Your task to perform on an android device: see tabs open on other devices in the chrome app Image 0: 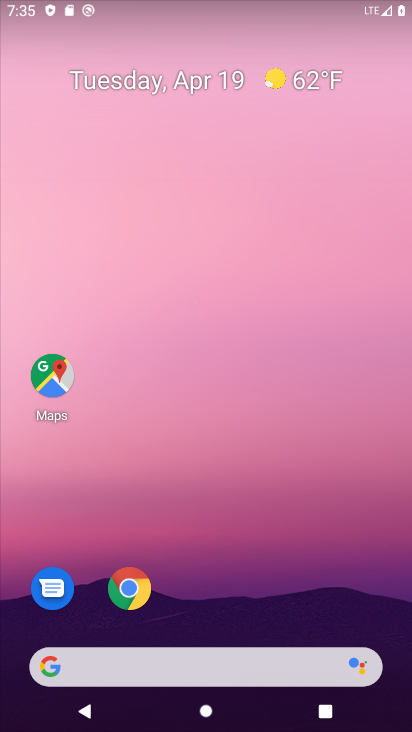
Step 0: click (113, 594)
Your task to perform on an android device: see tabs open on other devices in the chrome app Image 1: 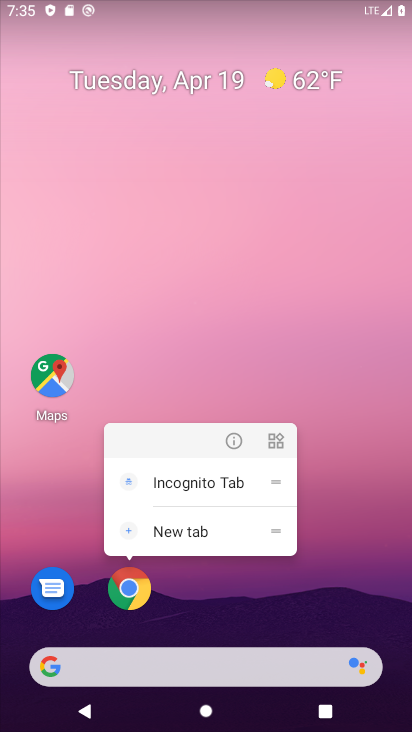
Step 1: click (130, 594)
Your task to perform on an android device: see tabs open on other devices in the chrome app Image 2: 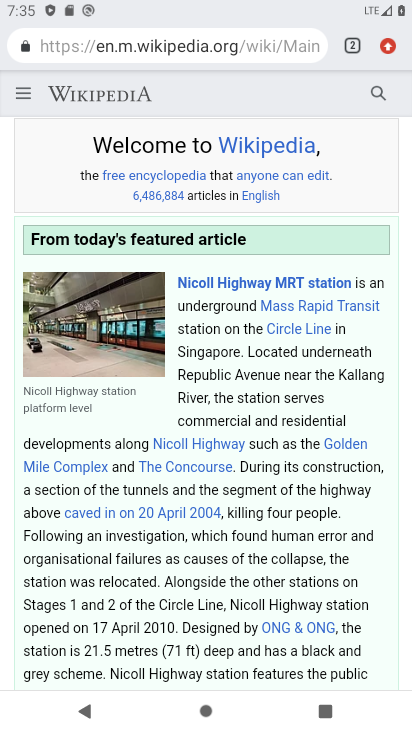
Step 2: click (388, 42)
Your task to perform on an android device: see tabs open on other devices in the chrome app Image 3: 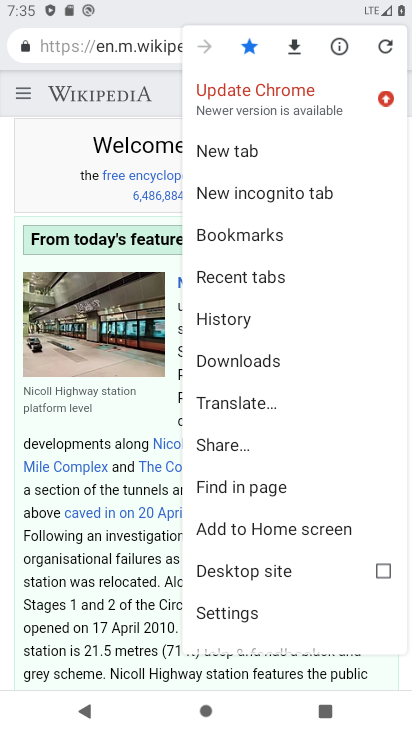
Step 3: click (259, 271)
Your task to perform on an android device: see tabs open on other devices in the chrome app Image 4: 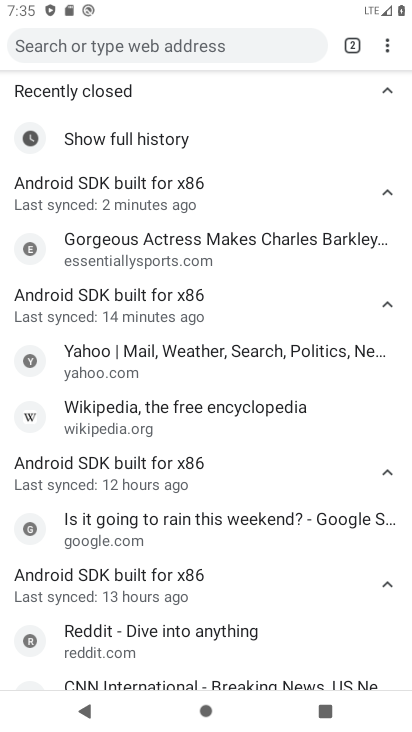
Step 4: task complete